Your task to perform on an android device: turn on location history Image 0: 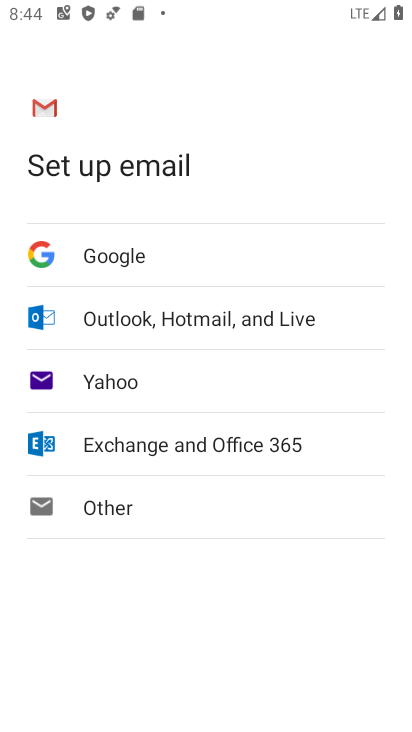
Step 0: press home button
Your task to perform on an android device: turn on location history Image 1: 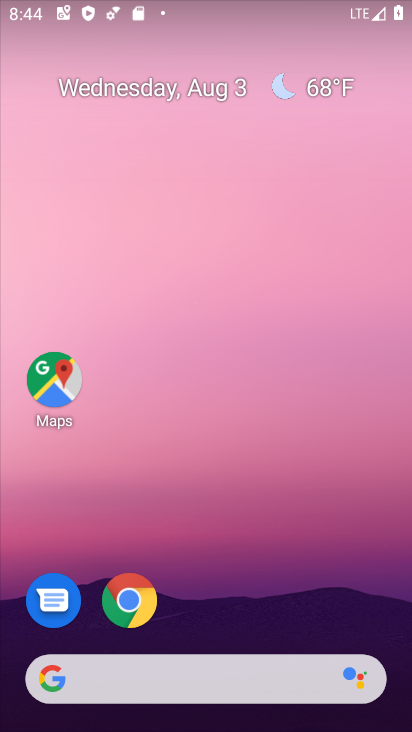
Step 1: drag from (238, 637) to (295, 2)
Your task to perform on an android device: turn on location history Image 2: 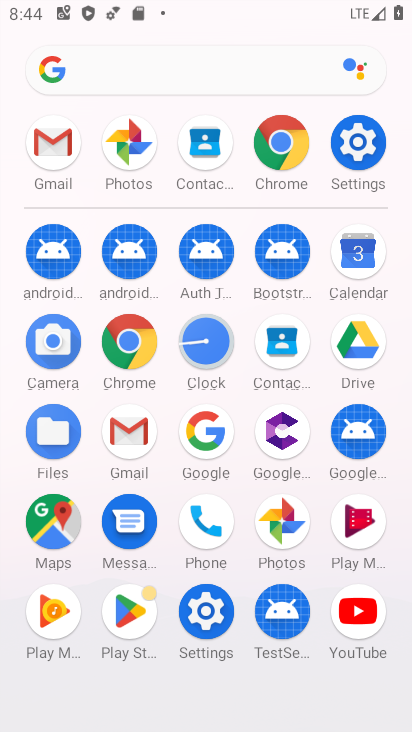
Step 2: click (209, 636)
Your task to perform on an android device: turn on location history Image 3: 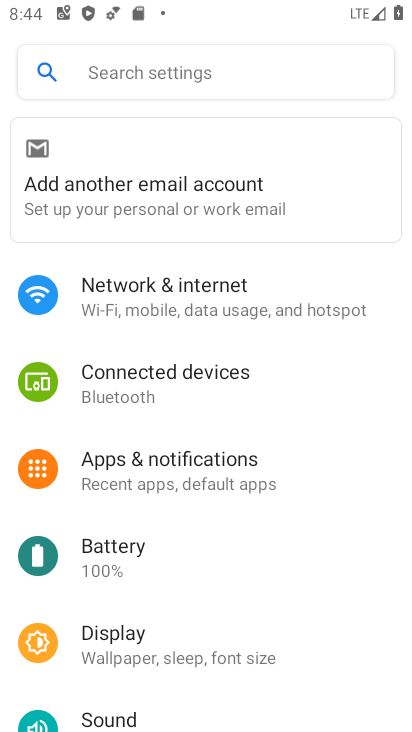
Step 3: drag from (201, 617) to (261, 231)
Your task to perform on an android device: turn on location history Image 4: 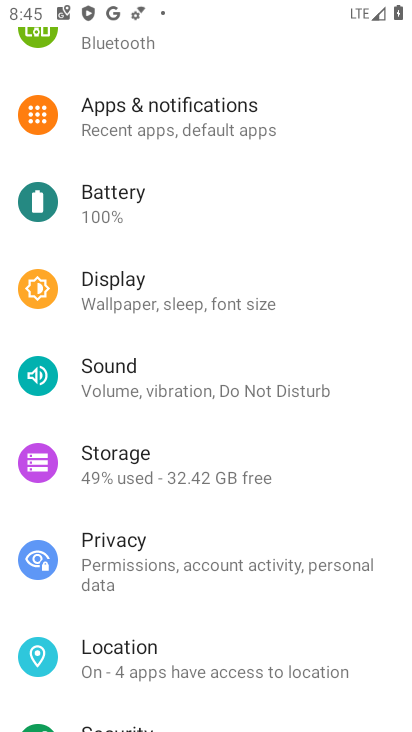
Step 4: click (144, 666)
Your task to perform on an android device: turn on location history Image 5: 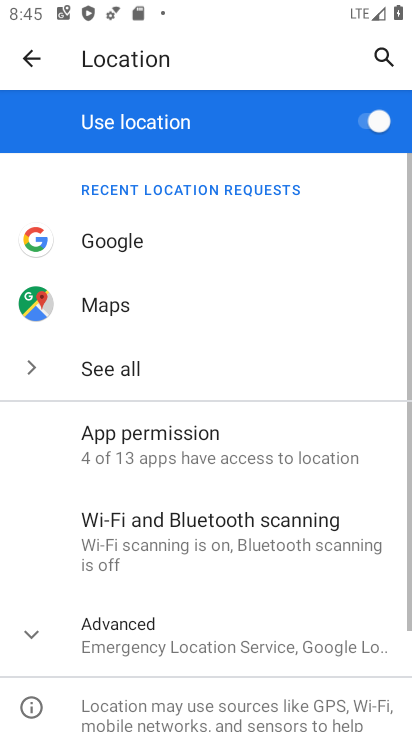
Step 5: click (144, 646)
Your task to perform on an android device: turn on location history Image 6: 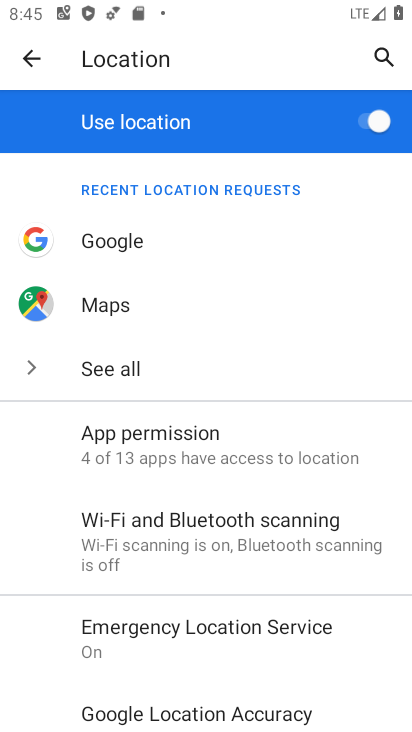
Step 6: drag from (180, 630) to (225, 371)
Your task to perform on an android device: turn on location history Image 7: 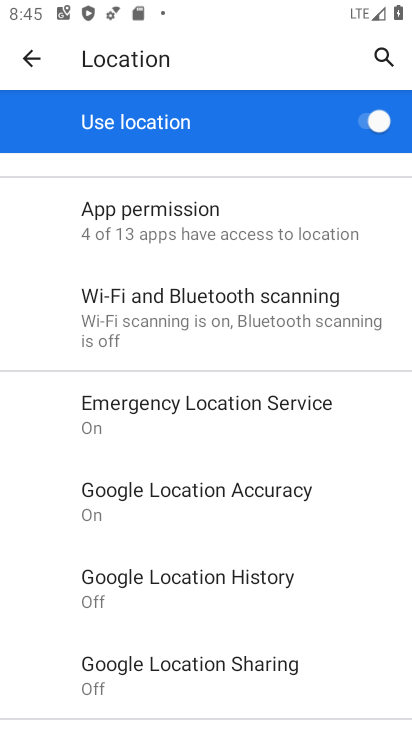
Step 7: click (209, 583)
Your task to perform on an android device: turn on location history Image 8: 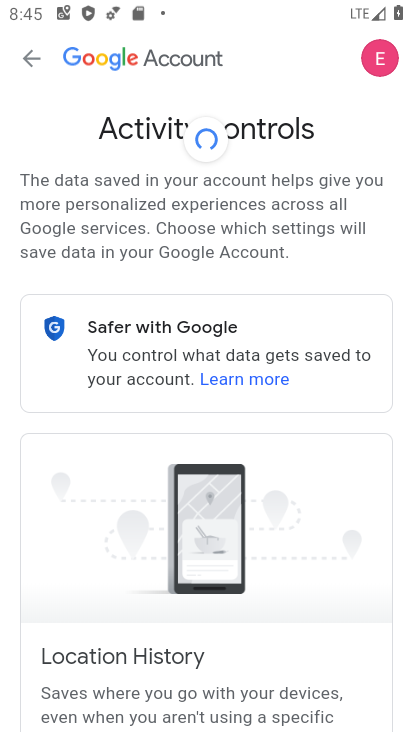
Step 8: drag from (210, 600) to (273, 171)
Your task to perform on an android device: turn on location history Image 9: 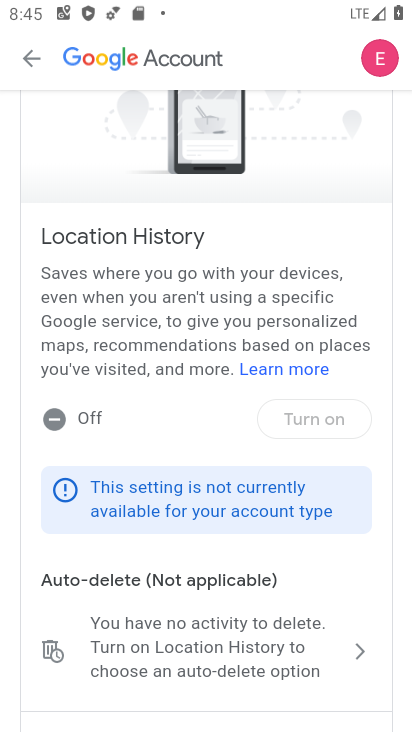
Step 9: click (138, 503)
Your task to perform on an android device: turn on location history Image 10: 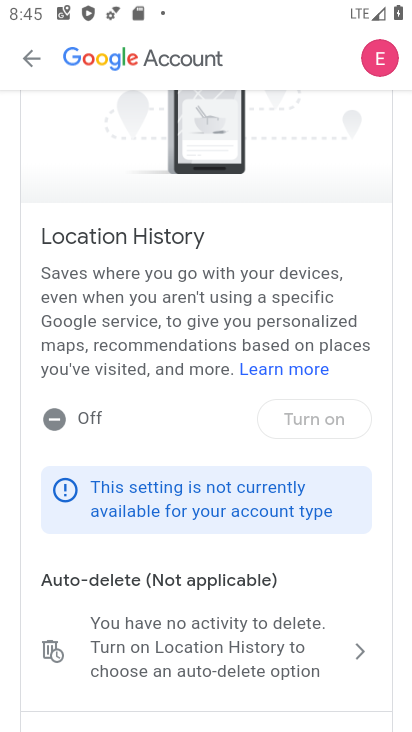
Step 10: drag from (188, 561) to (224, 296)
Your task to perform on an android device: turn on location history Image 11: 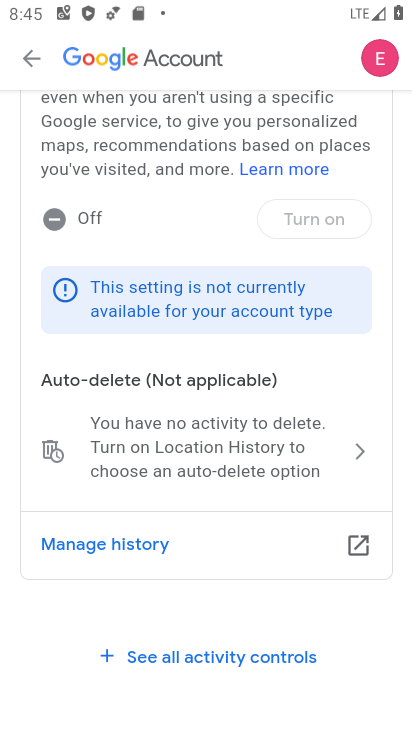
Step 11: drag from (247, 407) to (219, 604)
Your task to perform on an android device: turn on location history Image 12: 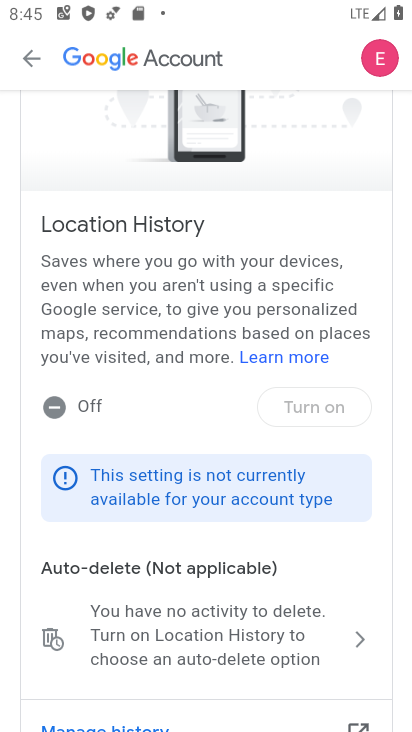
Step 12: click (315, 409)
Your task to perform on an android device: turn on location history Image 13: 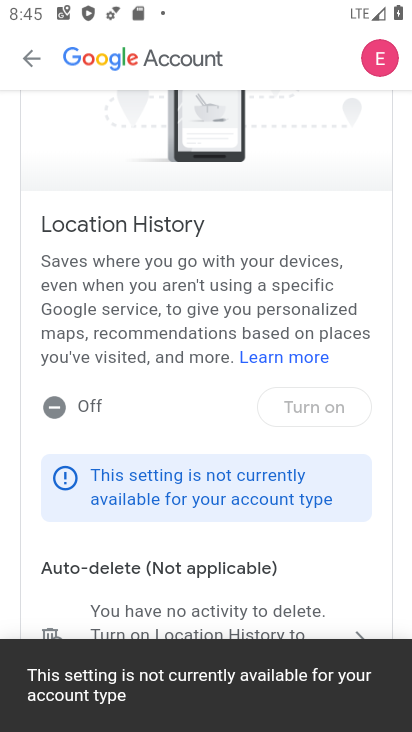
Step 13: click (315, 409)
Your task to perform on an android device: turn on location history Image 14: 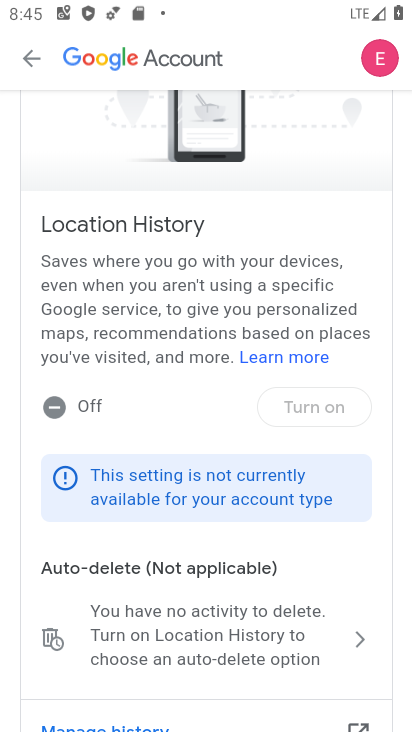
Step 14: task complete